Your task to perform on an android device: turn off picture-in-picture Image 0: 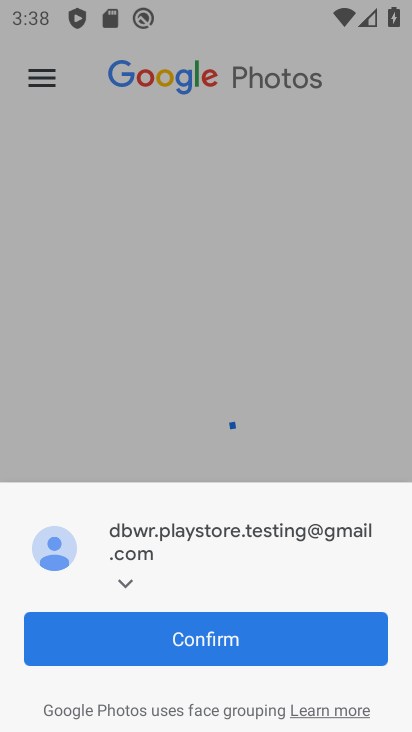
Step 0: press home button
Your task to perform on an android device: turn off picture-in-picture Image 1: 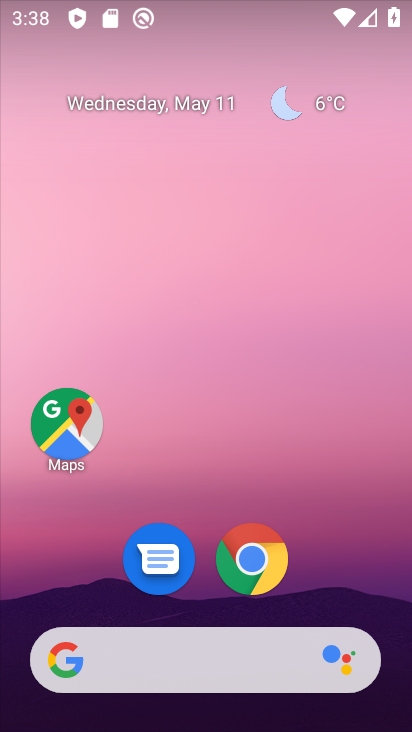
Step 1: click (273, 579)
Your task to perform on an android device: turn off picture-in-picture Image 2: 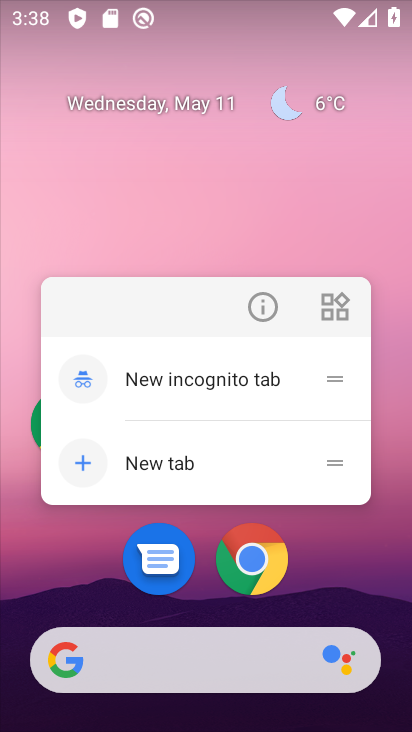
Step 2: click (253, 305)
Your task to perform on an android device: turn off picture-in-picture Image 3: 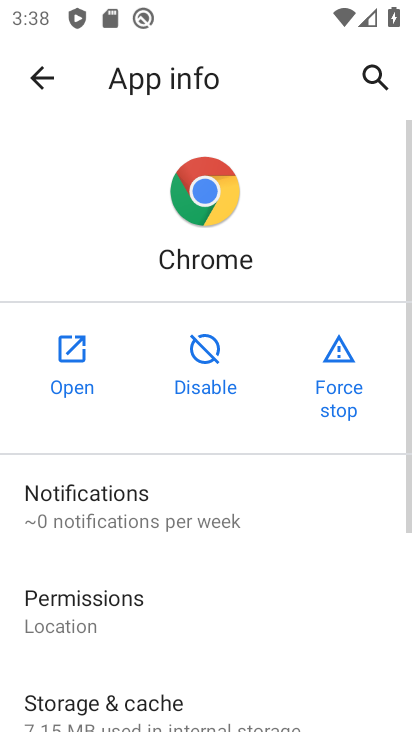
Step 3: drag from (247, 659) to (204, 309)
Your task to perform on an android device: turn off picture-in-picture Image 4: 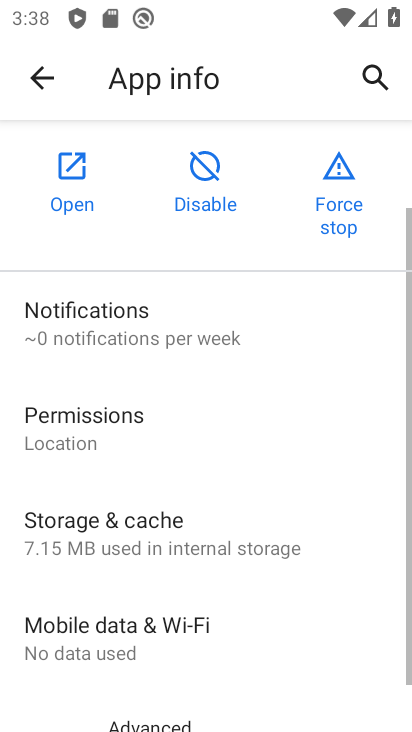
Step 4: drag from (239, 609) to (297, 181)
Your task to perform on an android device: turn off picture-in-picture Image 5: 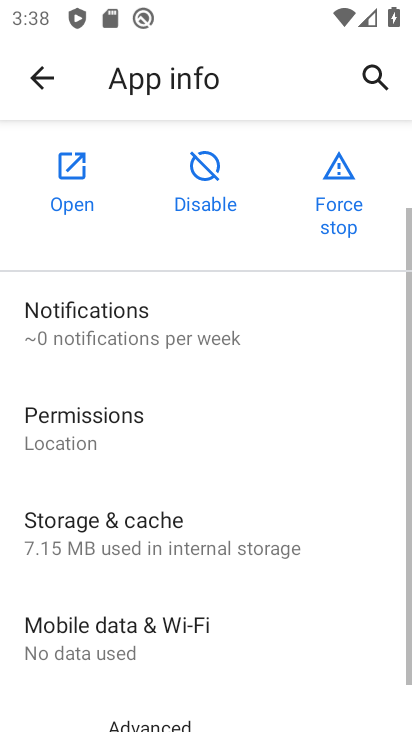
Step 5: drag from (176, 671) to (170, 292)
Your task to perform on an android device: turn off picture-in-picture Image 6: 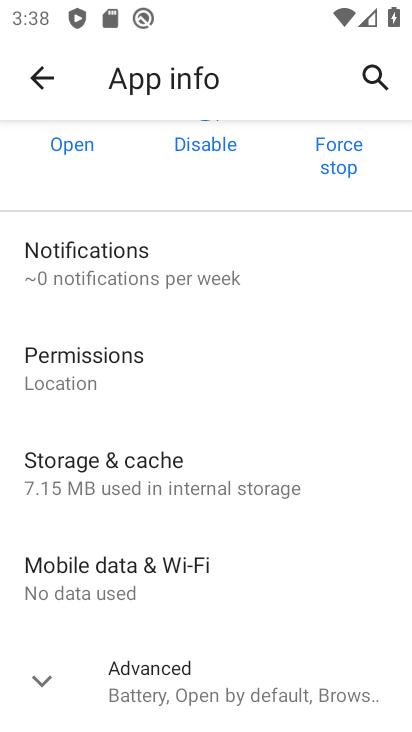
Step 6: click (175, 676)
Your task to perform on an android device: turn off picture-in-picture Image 7: 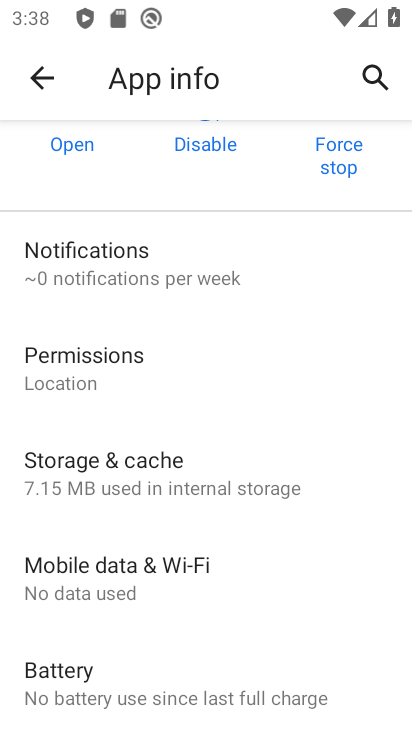
Step 7: drag from (185, 614) to (203, 259)
Your task to perform on an android device: turn off picture-in-picture Image 8: 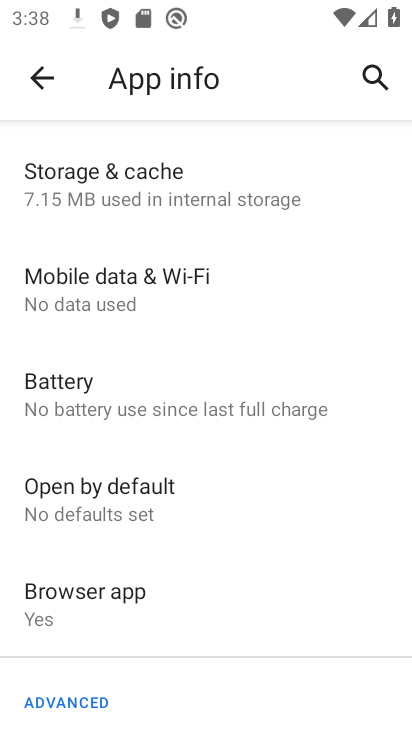
Step 8: drag from (163, 648) to (251, 219)
Your task to perform on an android device: turn off picture-in-picture Image 9: 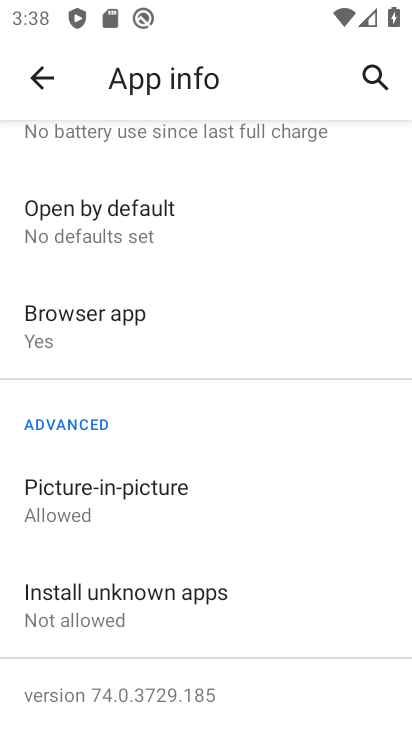
Step 9: click (109, 493)
Your task to perform on an android device: turn off picture-in-picture Image 10: 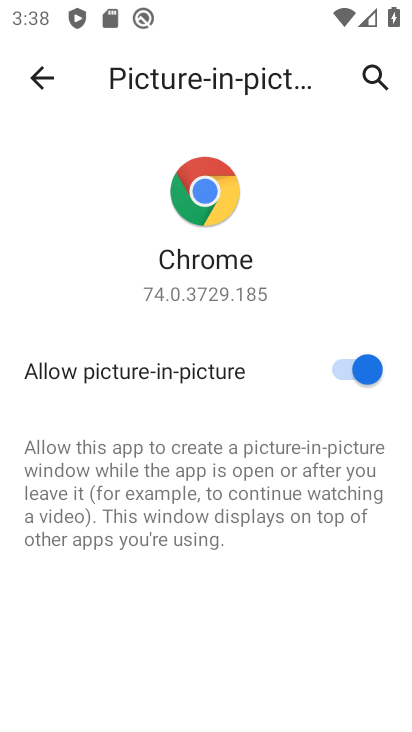
Step 10: click (381, 363)
Your task to perform on an android device: turn off picture-in-picture Image 11: 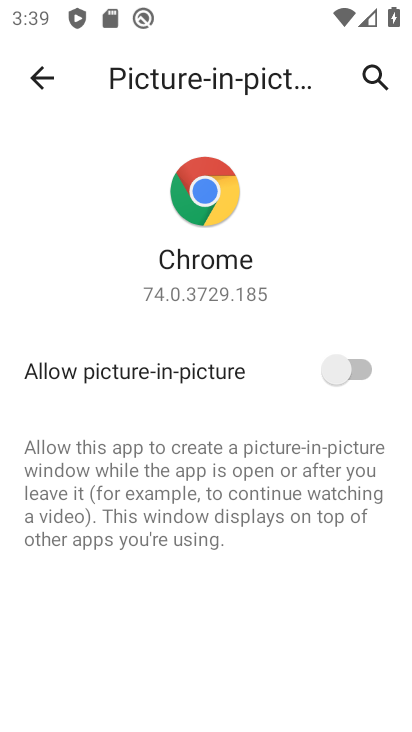
Step 11: task complete